Your task to perform on an android device: change text size in settings app Image 0: 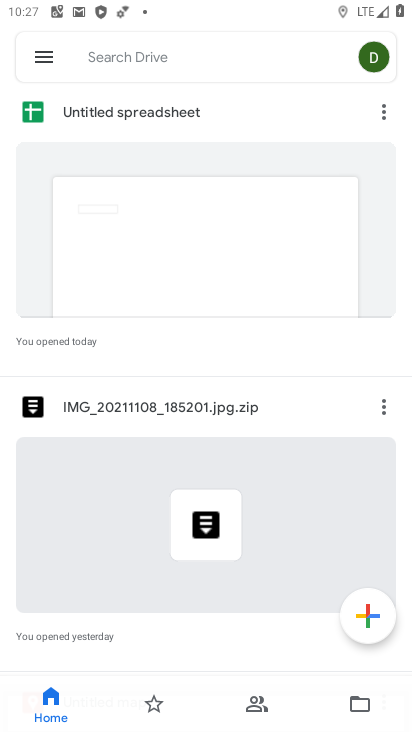
Step 0: press home button
Your task to perform on an android device: change text size in settings app Image 1: 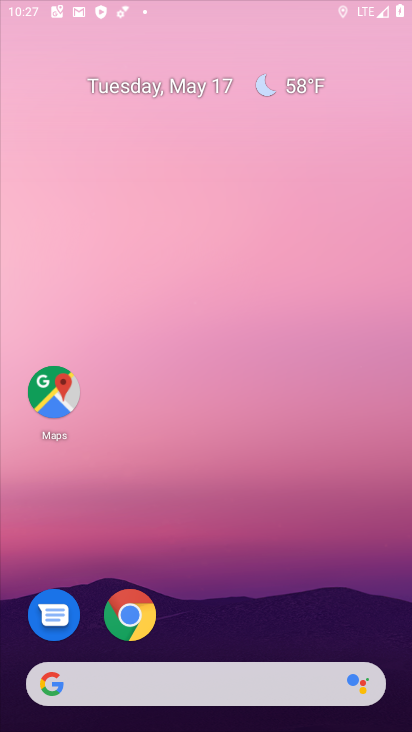
Step 1: drag from (235, 610) to (220, 204)
Your task to perform on an android device: change text size in settings app Image 2: 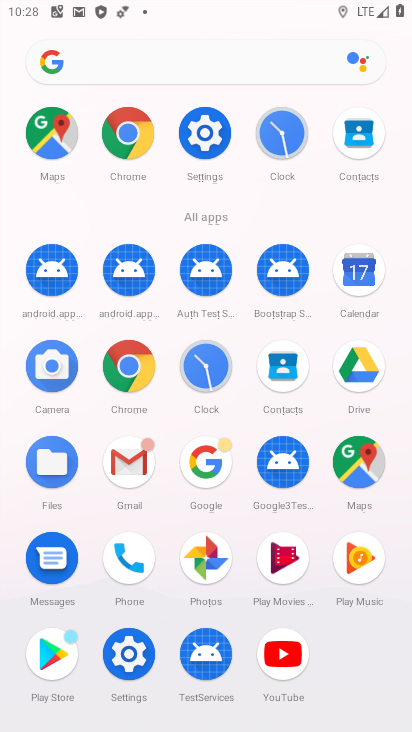
Step 2: click (183, 128)
Your task to perform on an android device: change text size in settings app Image 3: 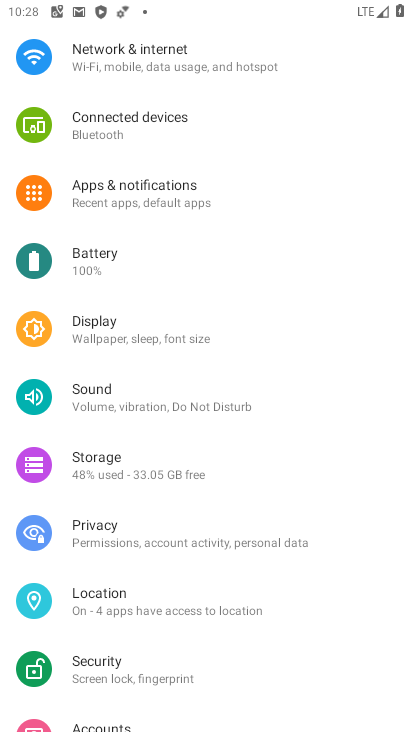
Step 3: click (146, 315)
Your task to perform on an android device: change text size in settings app Image 4: 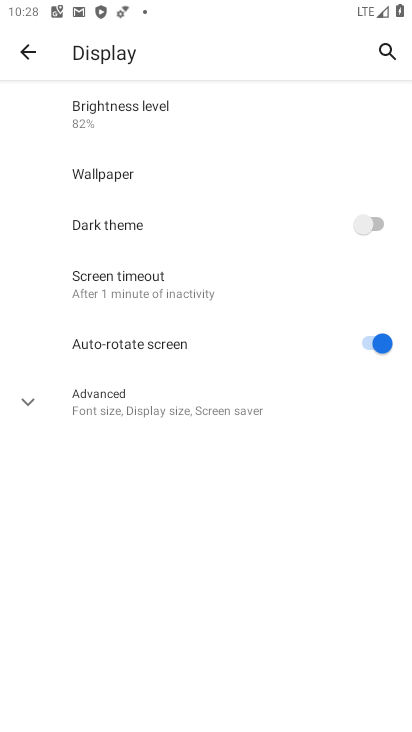
Step 4: click (214, 410)
Your task to perform on an android device: change text size in settings app Image 5: 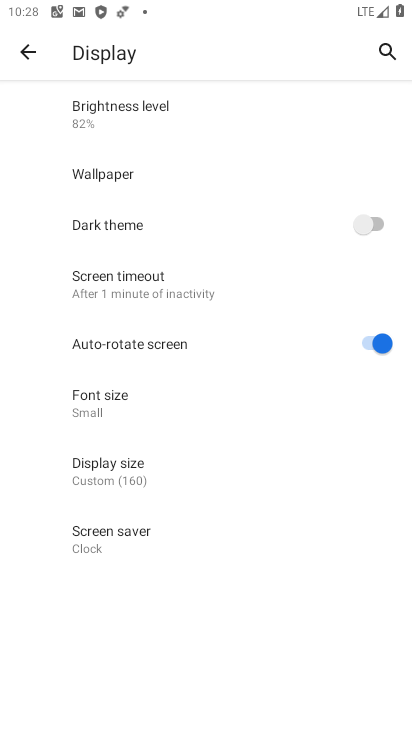
Step 5: click (146, 387)
Your task to perform on an android device: change text size in settings app Image 6: 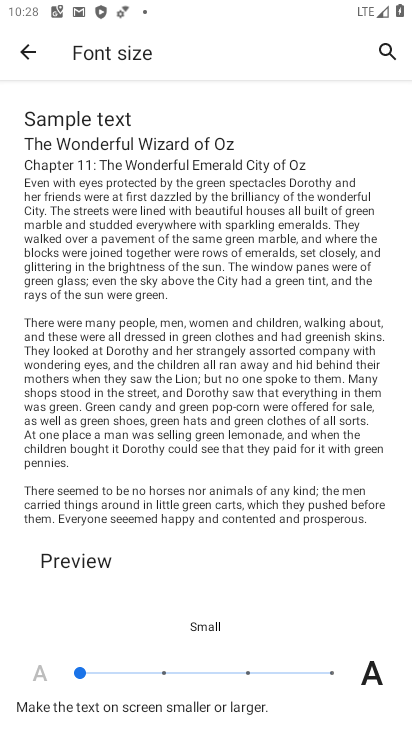
Step 6: click (156, 674)
Your task to perform on an android device: change text size in settings app Image 7: 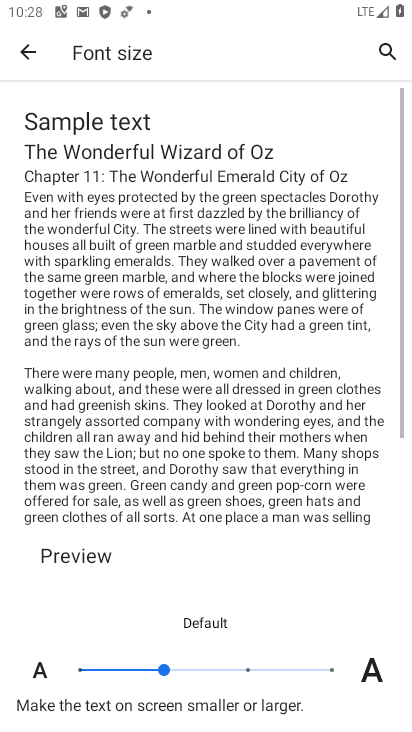
Step 7: task complete